Your task to perform on an android device: Play the last video I watched on Youtube Image 0: 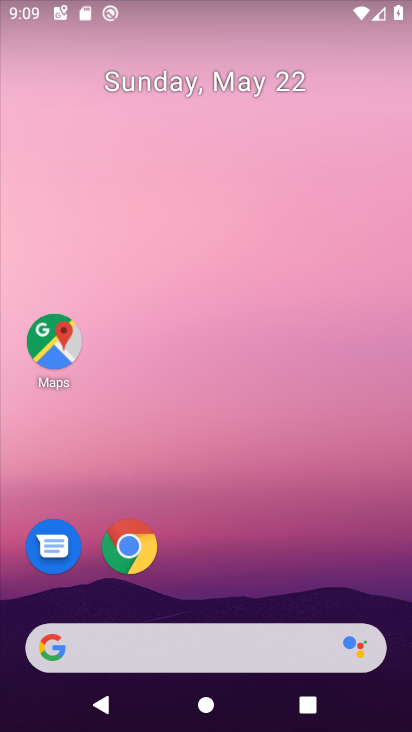
Step 0: drag from (396, 606) to (365, 170)
Your task to perform on an android device: Play the last video I watched on Youtube Image 1: 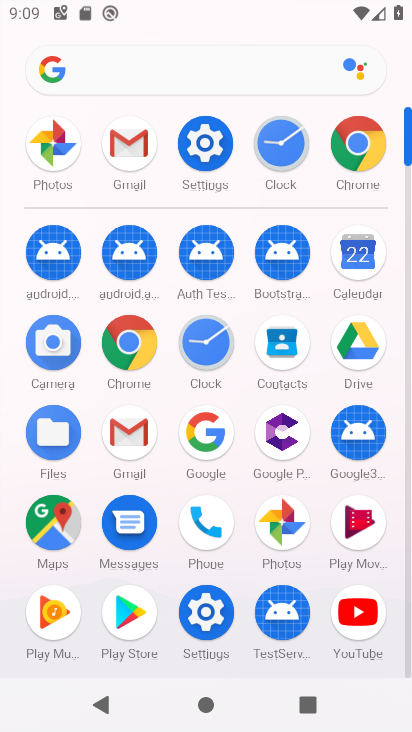
Step 1: click (345, 614)
Your task to perform on an android device: Play the last video I watched on Youtube Image 2: 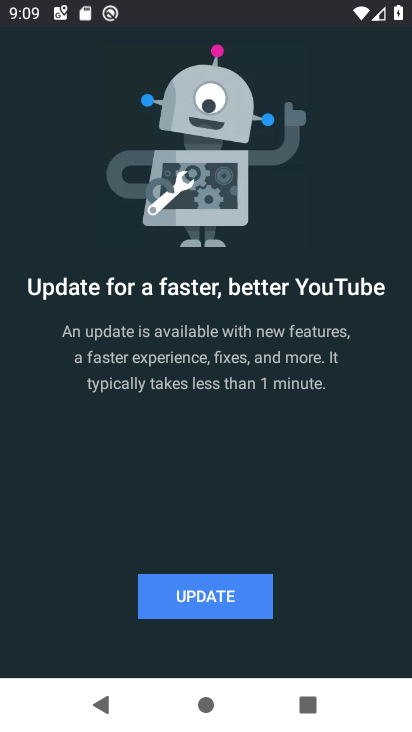
Step 2: click (250, 602)
Your task to perform on an android device: Play the last video I watched on Youtube Image 3: 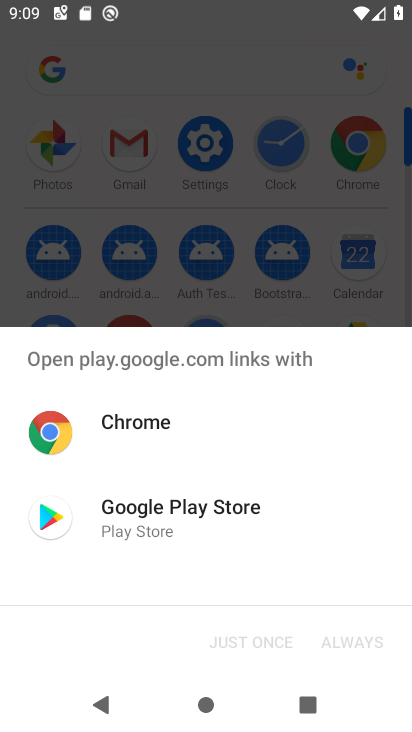
Step 3: click (211, 542)
Your task to perform on an android device: Play the last video I watched on Youtube Image 4: 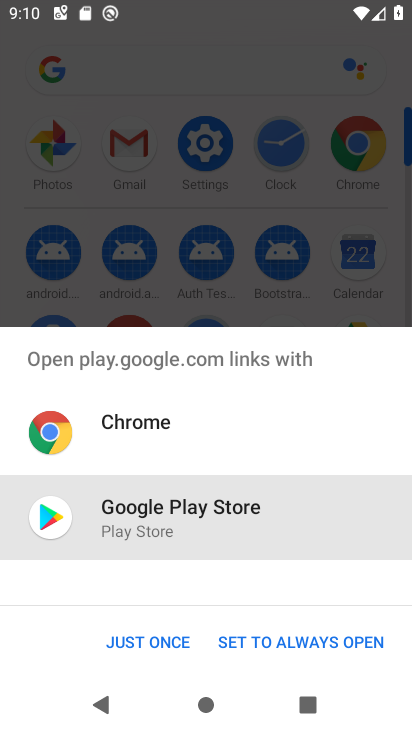
Step 4: click (159, 649)
Your task to perform on an android device: Play the last video I watched on Youtube Image 5: 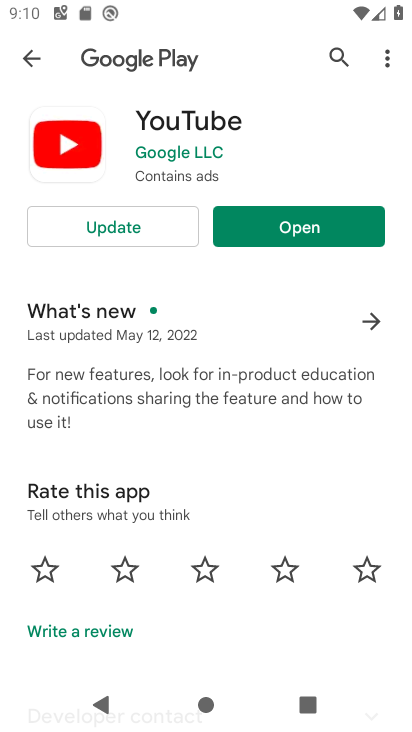
Step 5: click (122, 229)
Your task to perform on an android device: Play the last video I watched on Youtube Image 6: 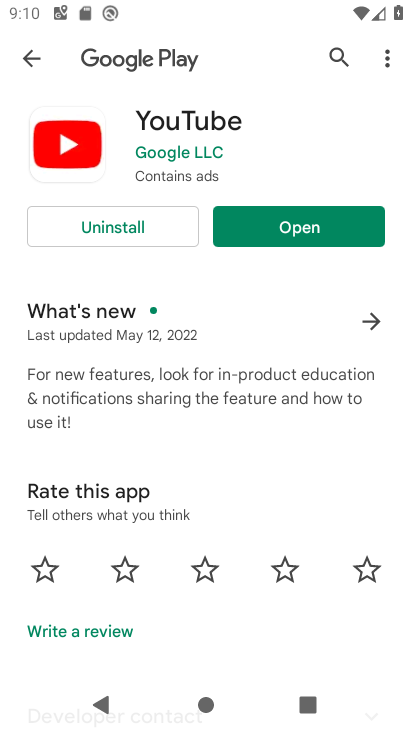
Step 6: click (342, 215)
Your task to perform on an android device: Play the last video I watched on Youtube Image 7: 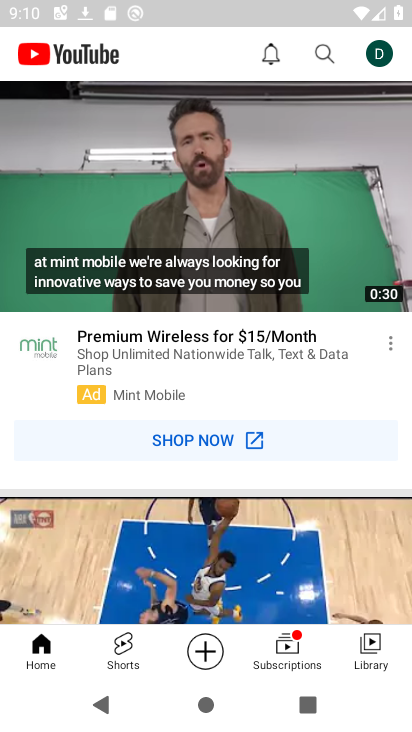
Step 7: click (375, 654)
Your task to perform on an android device: Play the last video I watched on Youtube Image 8: 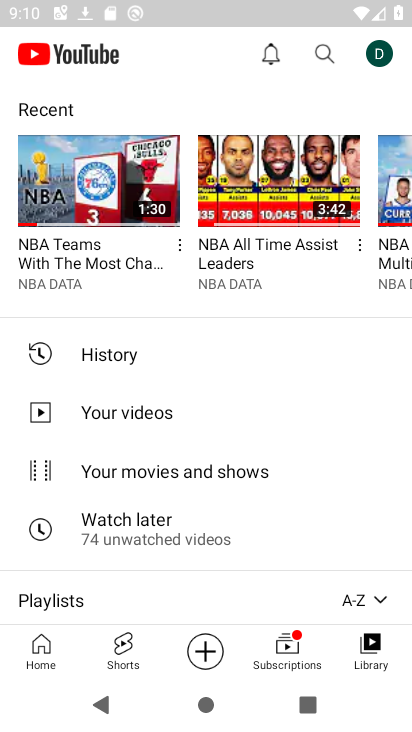
Step 8: click (61, 184)
Your task to perform on an android device: Play the last video I watched on Youtube Image 9: 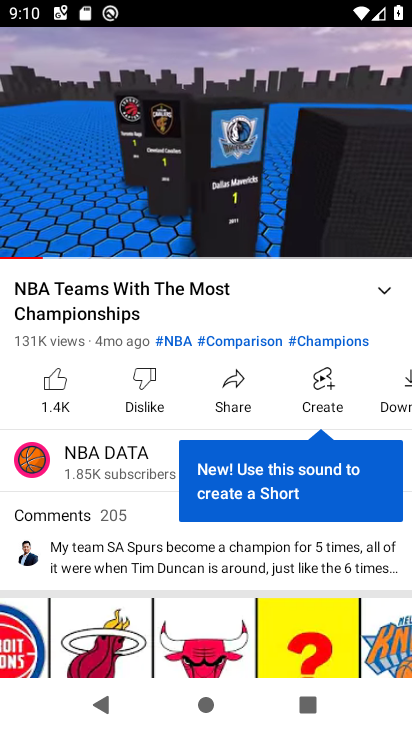
Step 9: task complete